Your task to perform on an android device: open wifi settings Image 0: 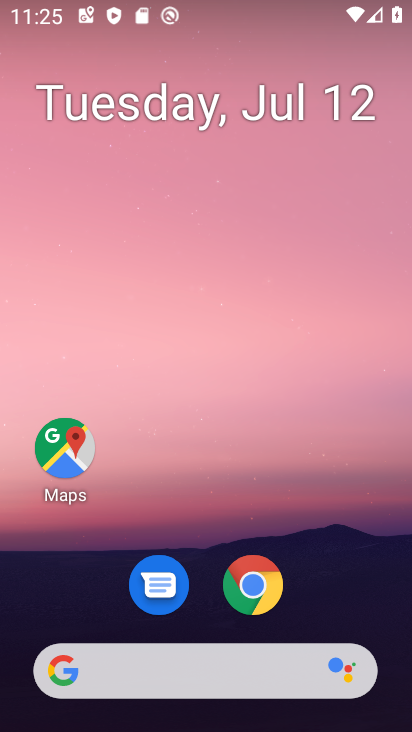
Step 0: drag from (329, 437) to (317, 52)
Your task to perform on an android device: open wifi settings Image 1: 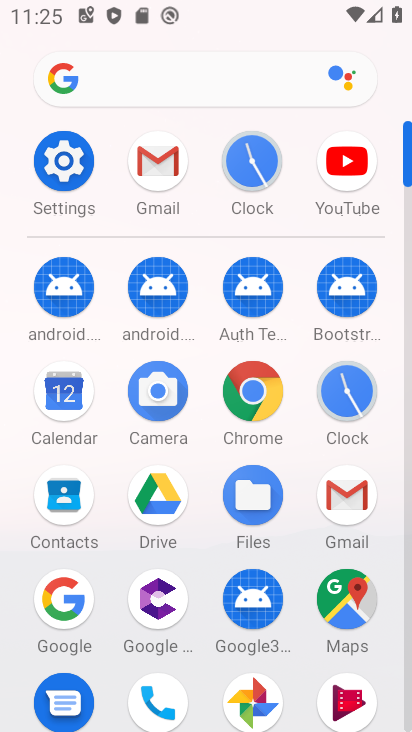
Step 1: click (66, 155)
Your task to perform on an android device: open wifi settings Image 2: 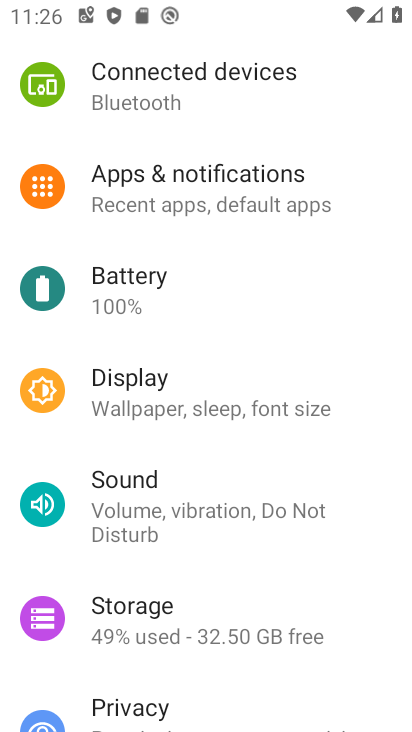
Step 2: drag from (240, 158) to (199, 558)
Your task to perform on an android device: open wifi settings Image 3: 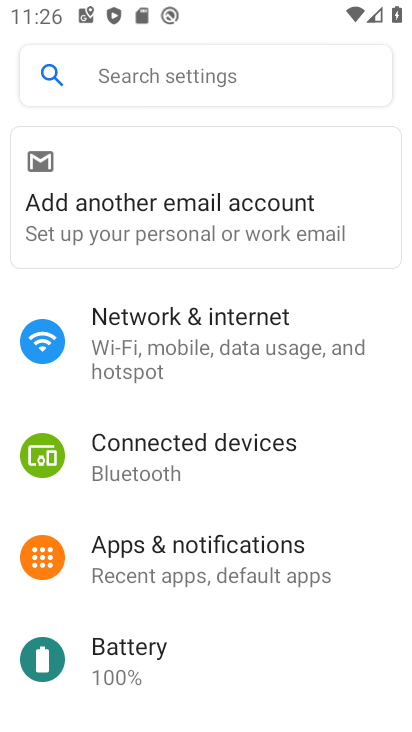
Step 3: click (265, 337)
Your task to perform on an android device: open wifi settings Image 4: 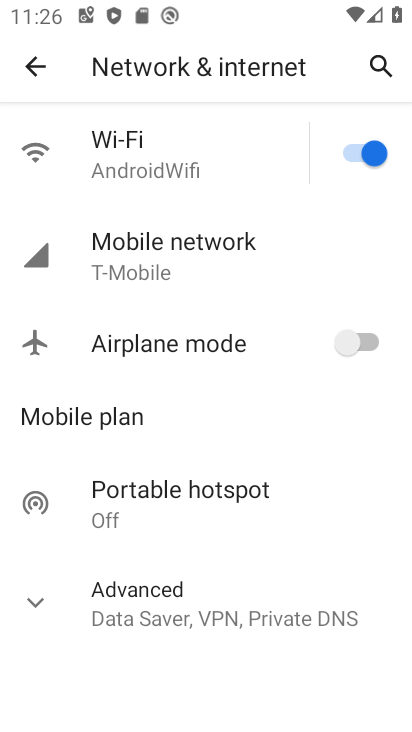
Step 4: click (186, 158)
Your task to perform on an android device: open wifi settings Image 5: 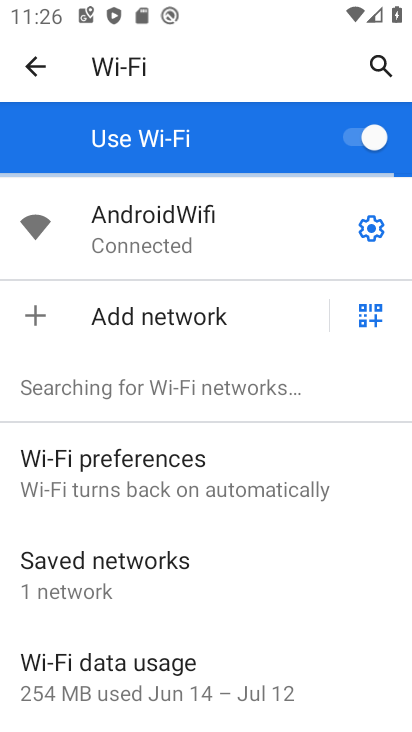
Step 5: task complete